Your task to perform on an android device: Open location settings Image 0: 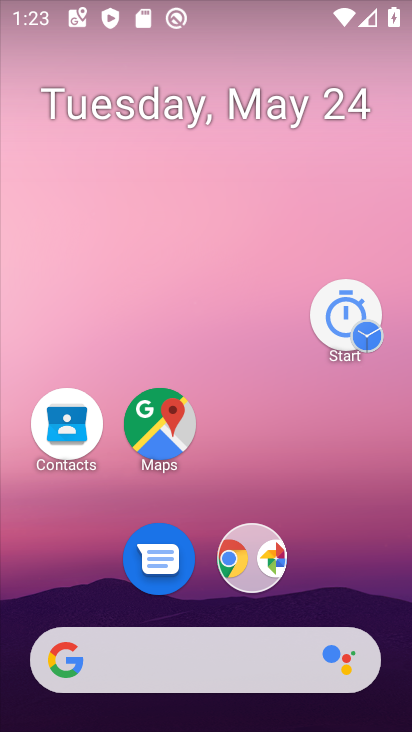
Step 0: drag from (370, 629) to (203, 1)
Your task to perform on an android device: Open location settings Image 1: 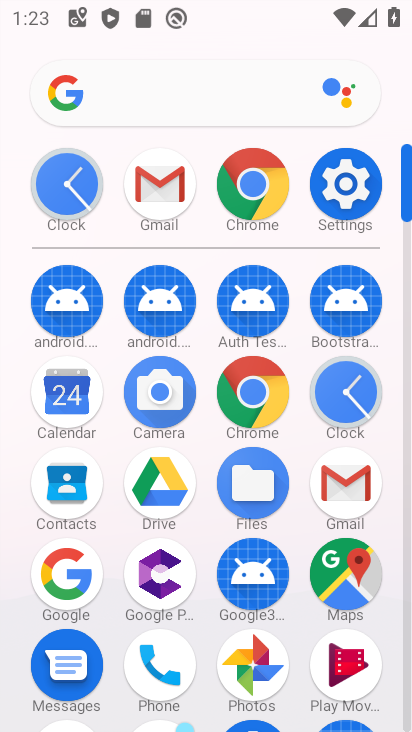
Step 1: click (325, 188)
Your task to perform on an android device: Open location settings Image 2: 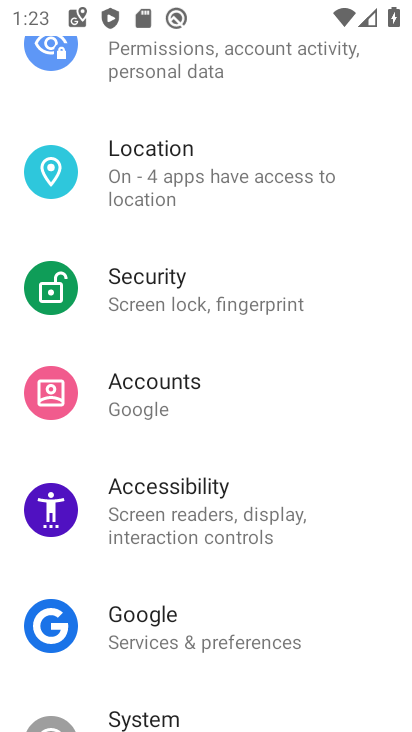
Step 2: click (164, 173)
Your task to perform on an android device: Open location settings Image 3: 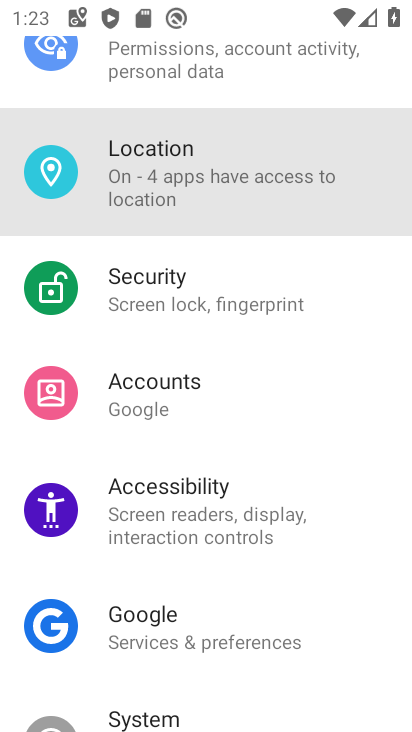
Step 3: click (164, 173)
Your task to perform on an android device: Open location settings Image 4: 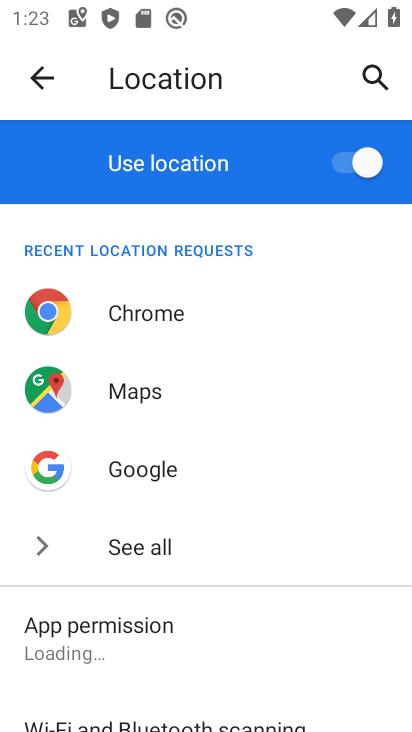
Step 4: click (202, 200)
Your task to perform on an android device: Open location settings Image 5: 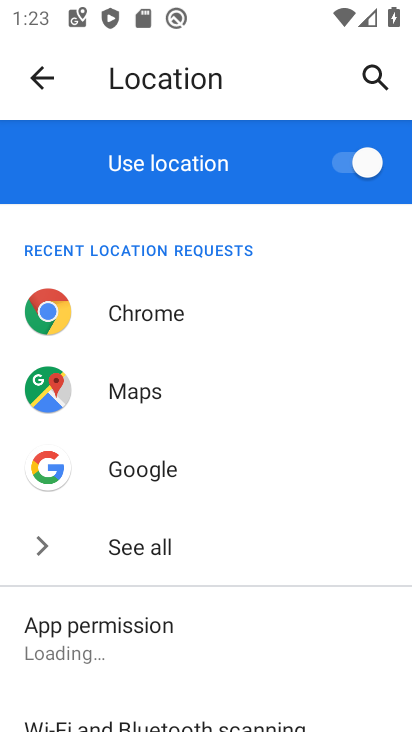
Step 5: drag from (225, 433) to (261, 26)
Your task to perform on an android device: Open location settings Image 6: 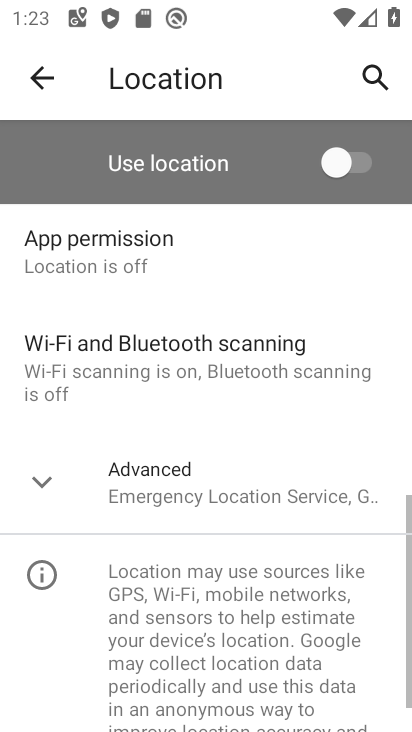
Step 6: drag from (198, 502) to (189, 38)
Your task to perform on an android device: Open location settings Image 7: 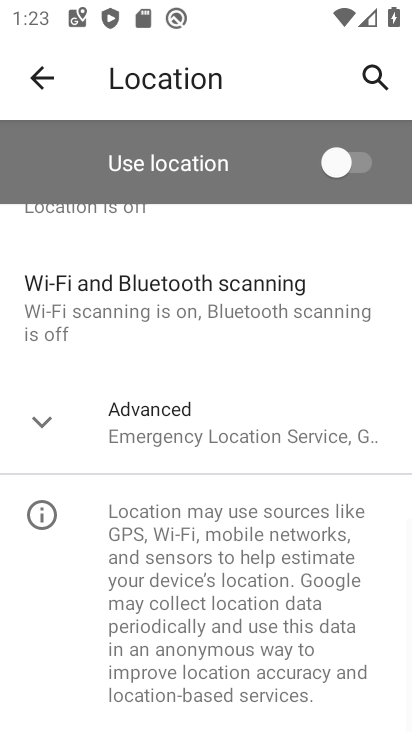
Step 7: click (338, 162)
Your task to perform on an android device: Open location settings Image 8: 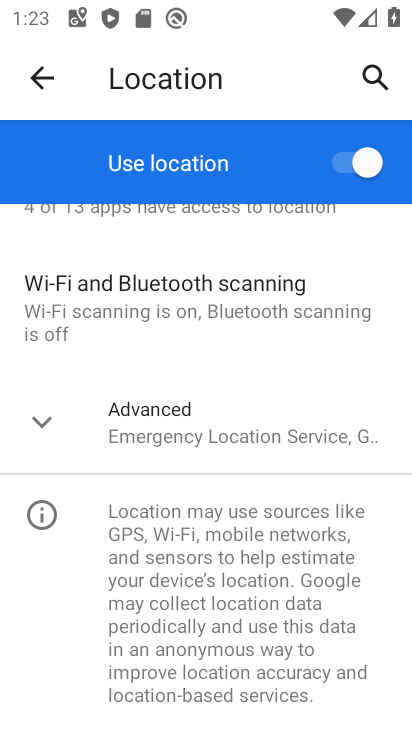
Step 8: click (154, 425)
Your task to perform on an android device: Open location settings Image 9: 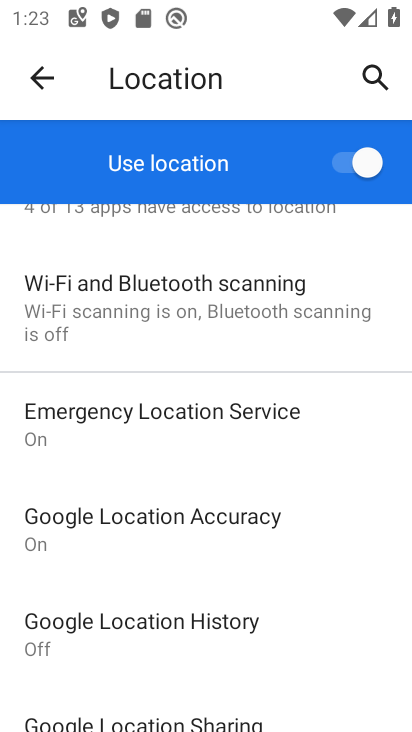
Step 9: task complete